Your task to perform on an android device: turn off sleep mode Image 0: 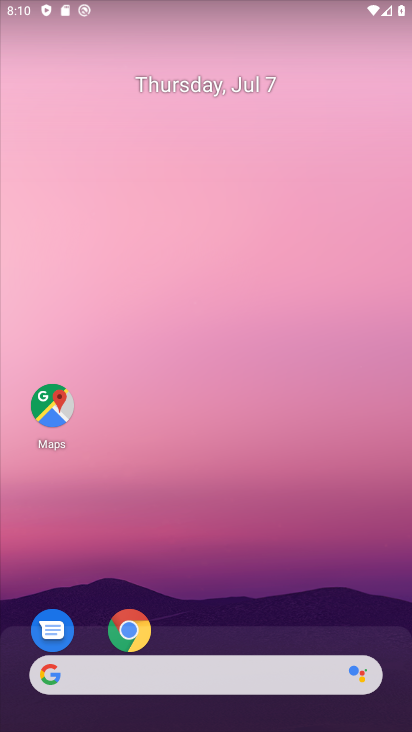
Step 0: drag from (239, 612) to (257, 123)
Your task to perform on an android device: turn off sleep mode Image 1: 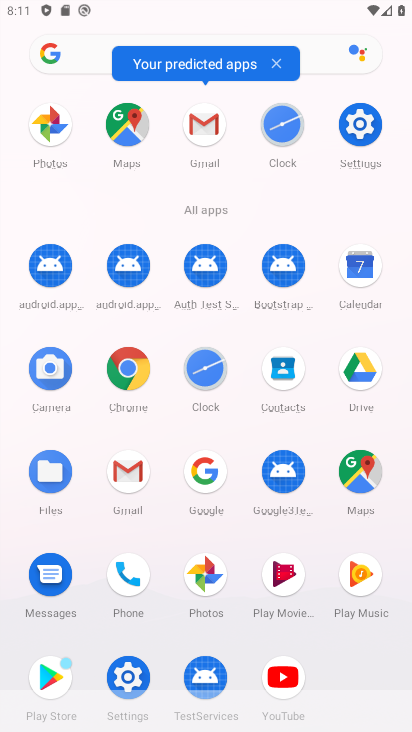
Step 1: click (363, 123)
Your task to perform on an android device: turn off sleep mode Image 2: 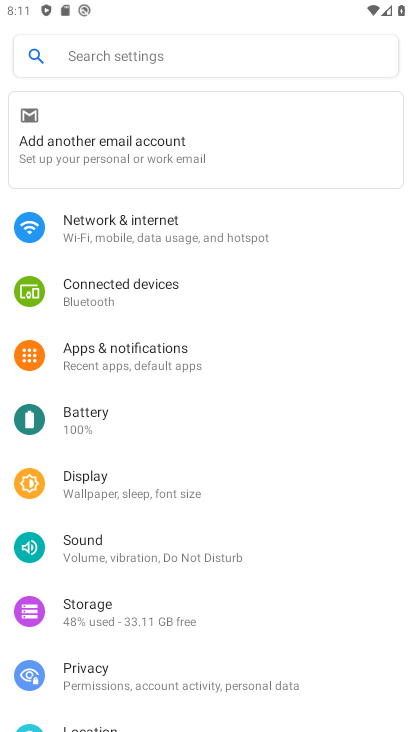
Step 2: drag from (148, 518) to (140, 359)
Your task to perform on an android device: turn off sleep mode Image 3: 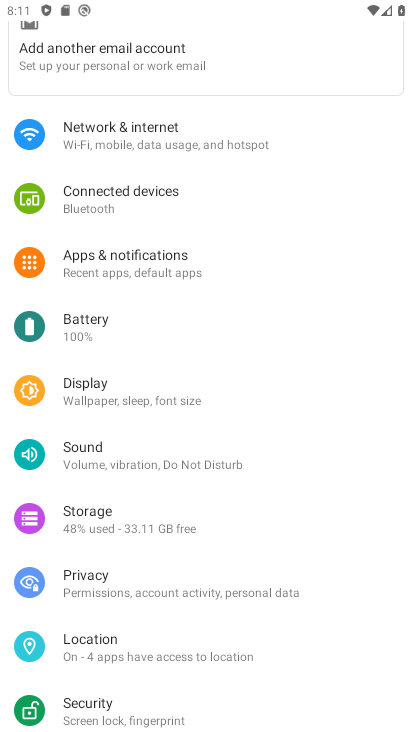
Step 3: drag from (92, 508) to (127, 39)
Your task to perform on an android device: turn off sleep mode Image 4: 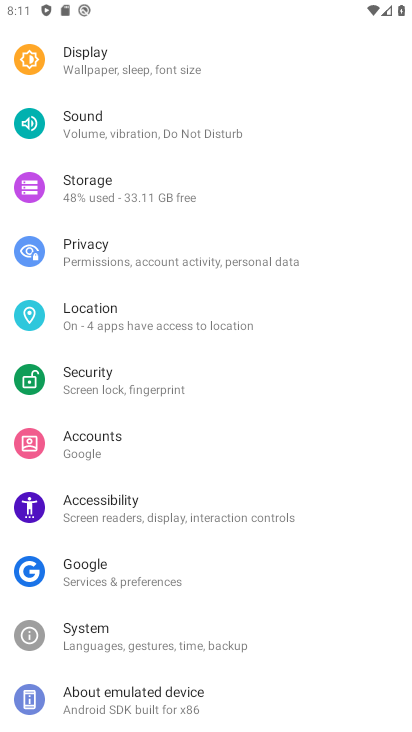
Step 4: click (301, 57)
Your task to perform on an android device: turn off sleep mode Image 5: 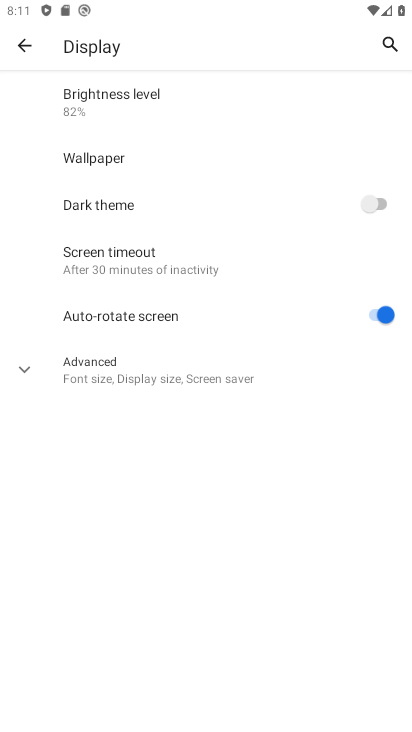
Step 5: click (106, 366)
Your task to perform on an android device: turn off sleep mode Image 6: 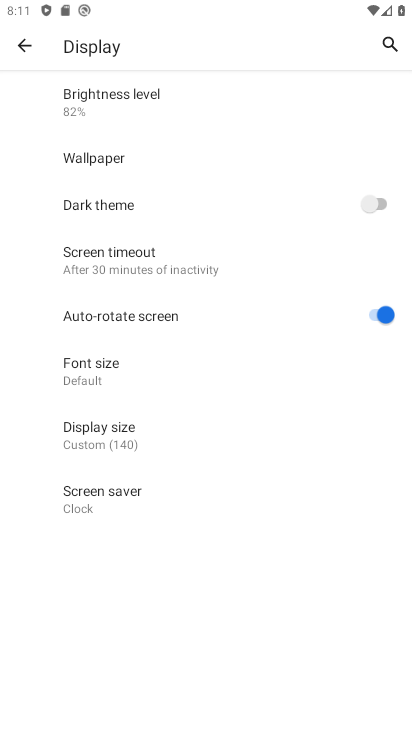
Step 6: task complete